Your task to perform on an android device: turn smart compose on in the gmail app Image 0: 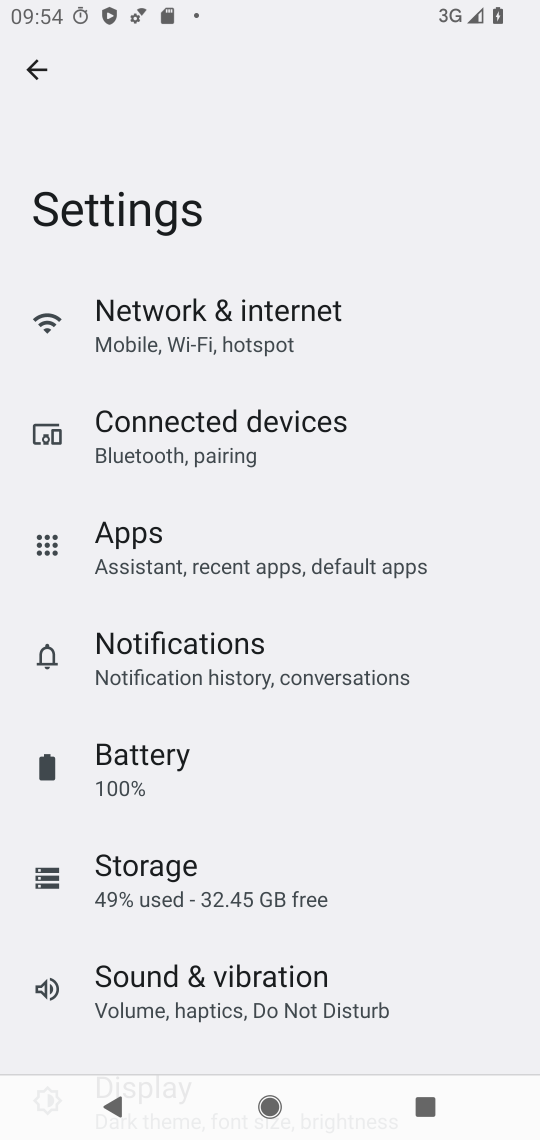
Step 0: press home button
Your task to perform on an android device: turn smart compose on in the gmail app Image 1: 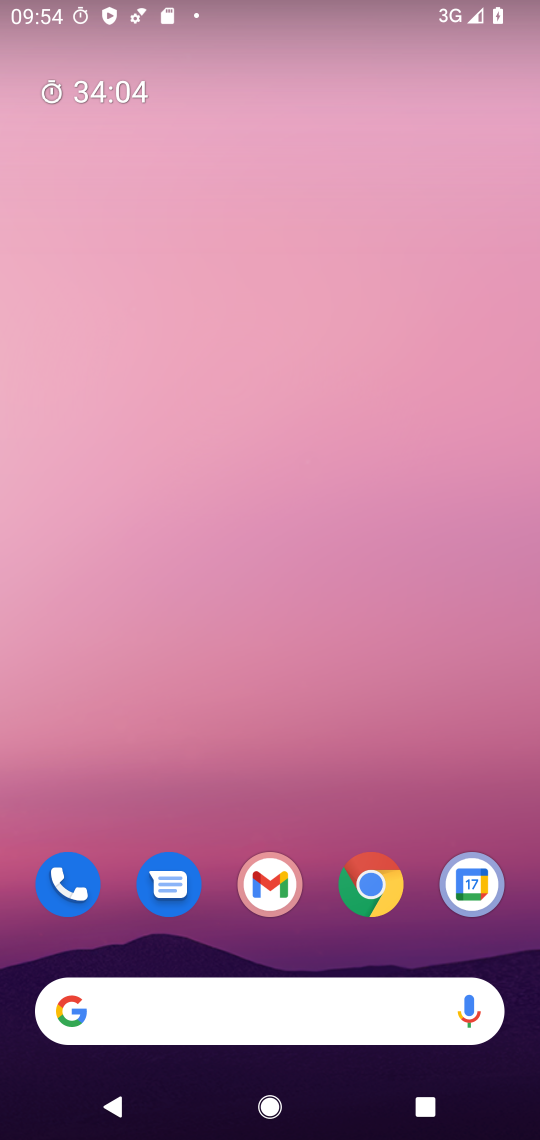
Step 1: click (268, 859)
Your task to perform on an android device: turn smart compose on in the gmail app Image 2: 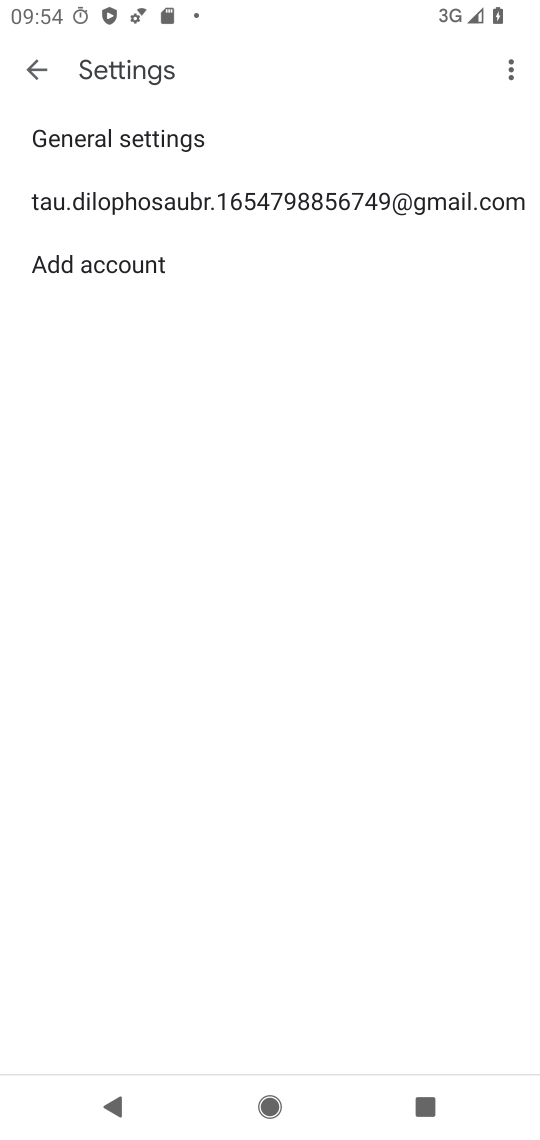
Step 2: click (118, 186)
Your task to perform on an android device: turn smart compose on in the gmail app Image 3: 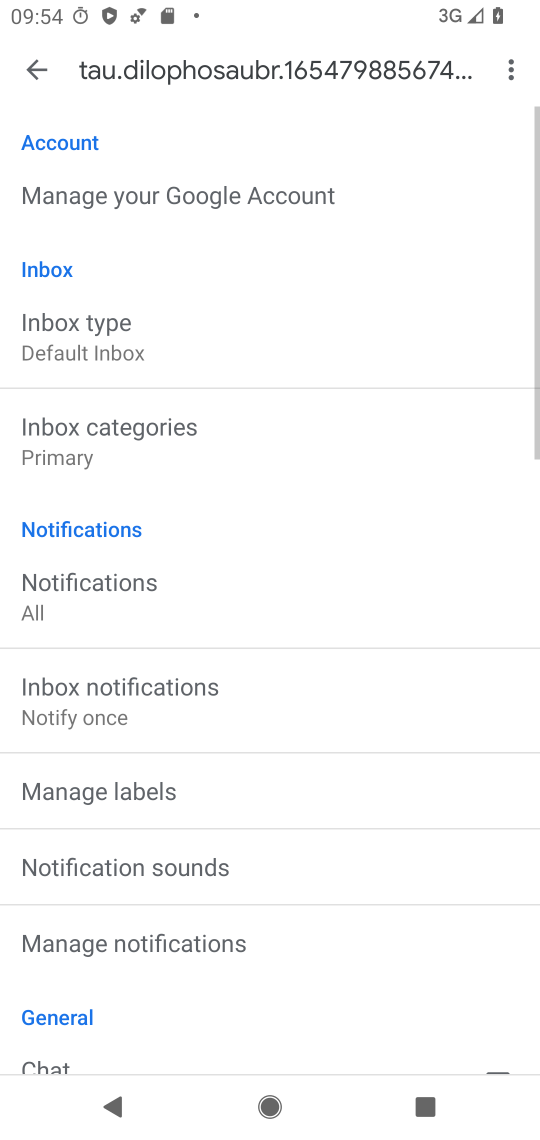
Step 3: task complete